Your task to perform on an android device: Open ESPN.com Image 0: 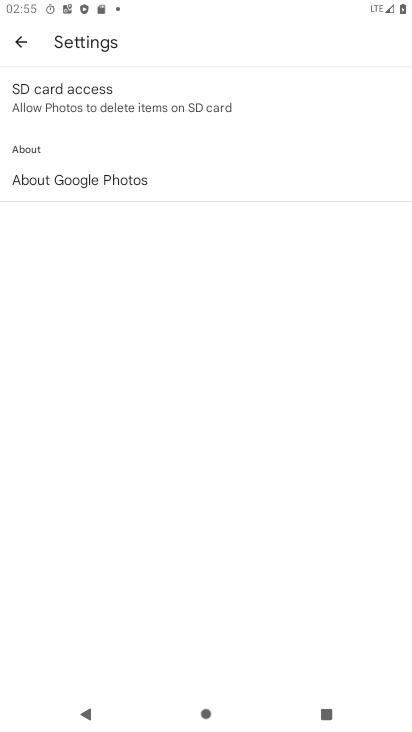
Step 0: press home button
Your task to perform on an android device: Open ESPN.com Image 1: 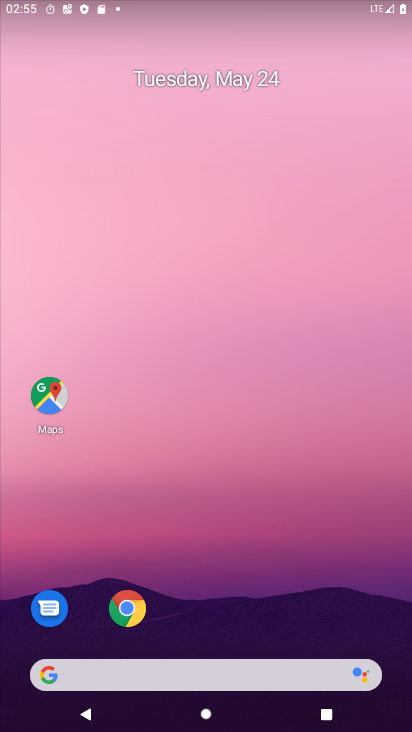
Step 1: drag from (219, 618) to (170, 60)
Your task to perform on an android device: Open ESPN.com Image 2: 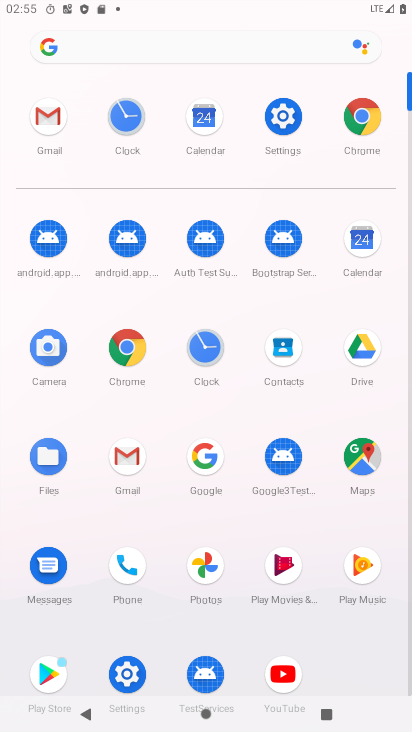
Step 2: click (367, 119)
Your task to perform on an android device: Open ESPN.com Image 3: 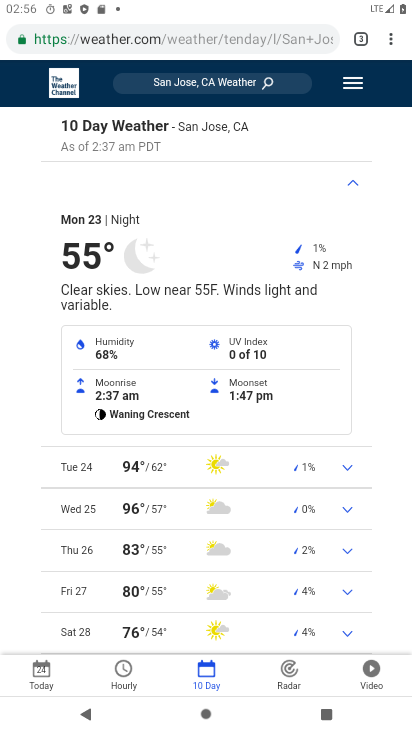
Step 3: click (226, 41)
Your task to perform on an android device: Open ESPN.com Image 4: 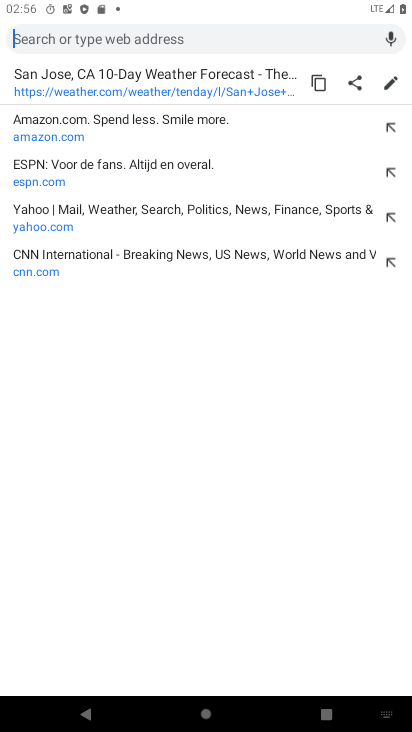
Step 4: click (226, 41)
Your task to perform on an android device: Open ESPN.com Image 5: 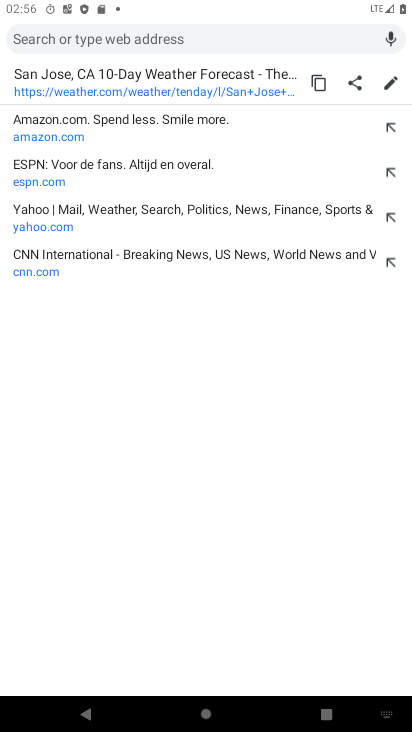
Step 5: click (42, 185)
Your task to perform on an android device: Open ESPN.com Image 6: 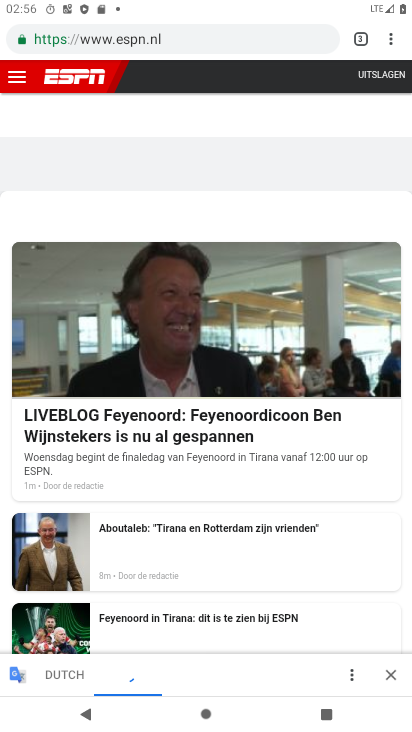
Step 6: task complete